Your task to perform on an android device: set default search engine in the chrome app Image 0: 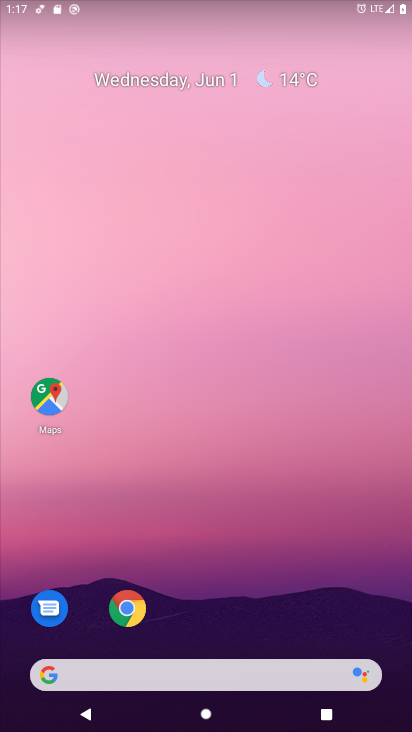
Step 0: drag from (224, 598) to (320, 57)
Your task to perform on an android device: set default search engine in the chrome app Image 1: 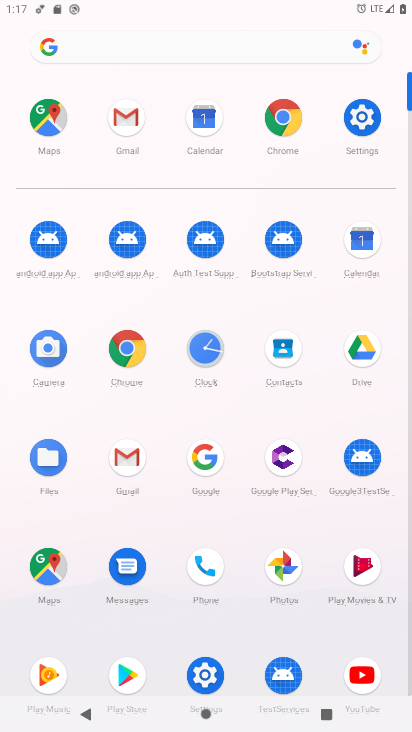
Step 1: click (138, 368)
Your task to perform on an android device: set default search engine in the chrome app Image 2: 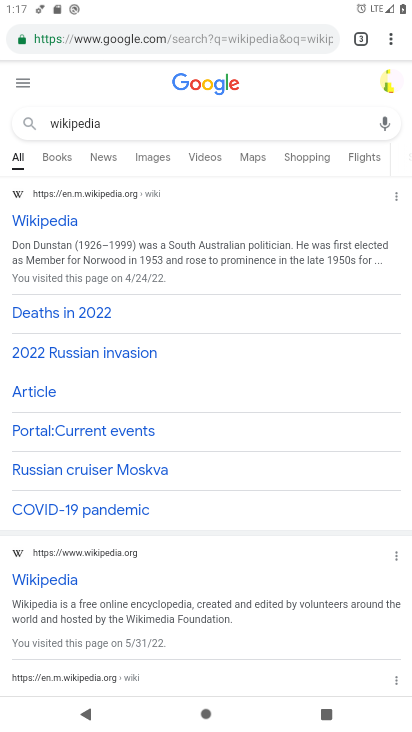
Step 2: click (396, 33)
Your task to perform on an android device: set default search engine in the chrome app Image 3: 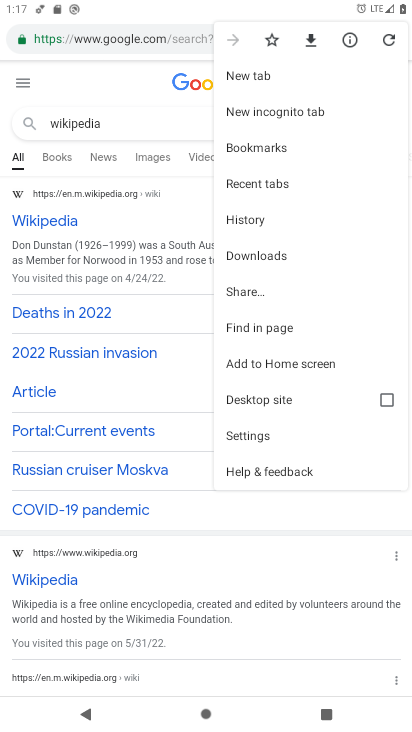
Step 3: click (261, 426)
Your task to perform on an android device: set default search engine in the chrome app Image 4: 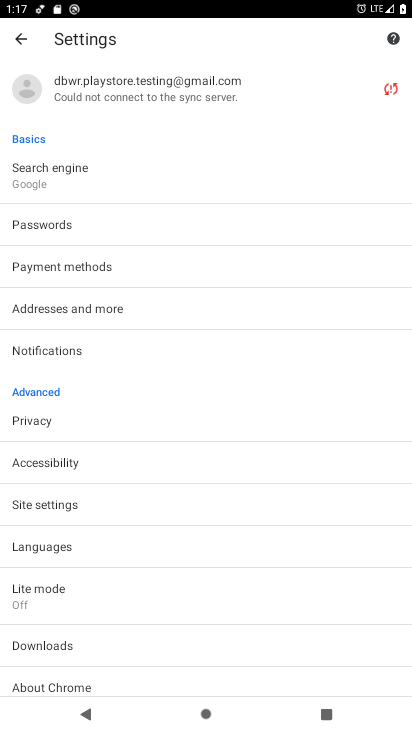
Step 4: click (61, 164)
Your task to perform on an android device: set default search engine in the chrome app Image 5: 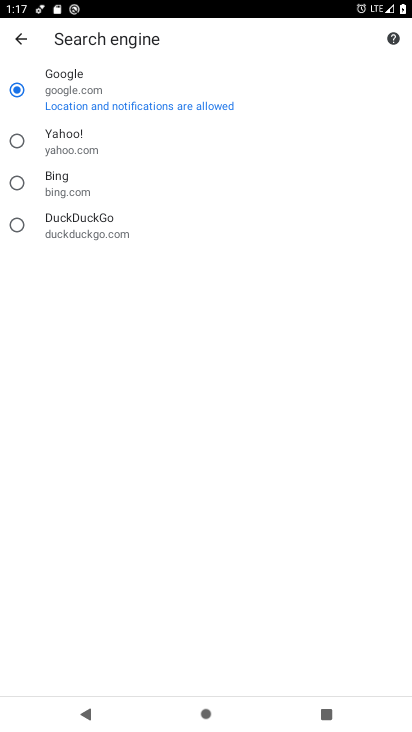
Step 5: click (63, 93)
Your task to perform on an android device: set default search engine in the chrome app Image 6: 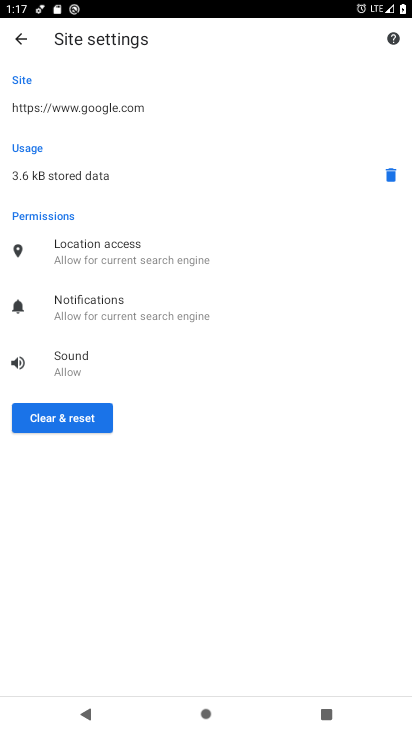
Step 6: click (69, 425)
Your task to perform on an android device: set default search engine in the chrome app Image 7: 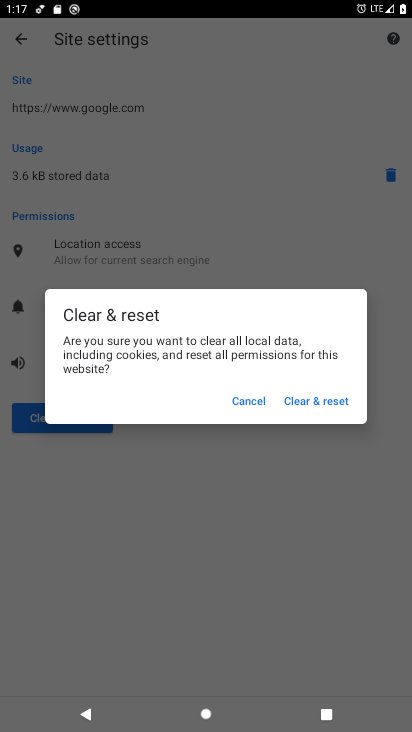
Step 7: click (337, 396)
Your task to perform on an android device: set default search engine in the chrome app Image 8: 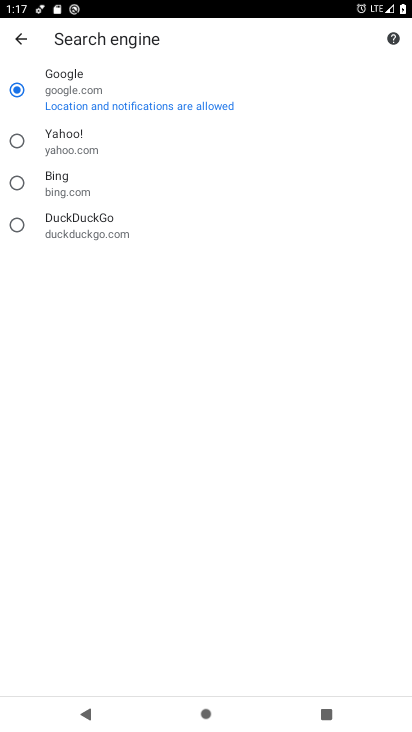
Step 8: task complete